Your task to perform on an android device: Is it going to rain today? Image 0: 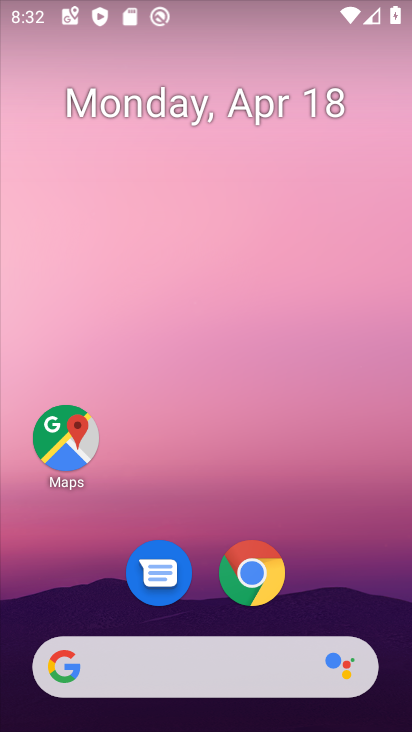
Step 0: click (197, 676)
Your task to perform on an android device: Is it going to rain today? Image 1: 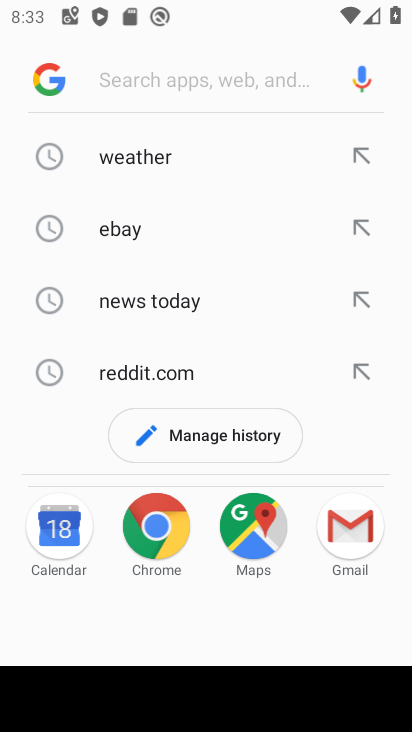
Step 1: type "is it going to rain today"
Your task to perform on an android device: Is it going to rain today? Image 2: 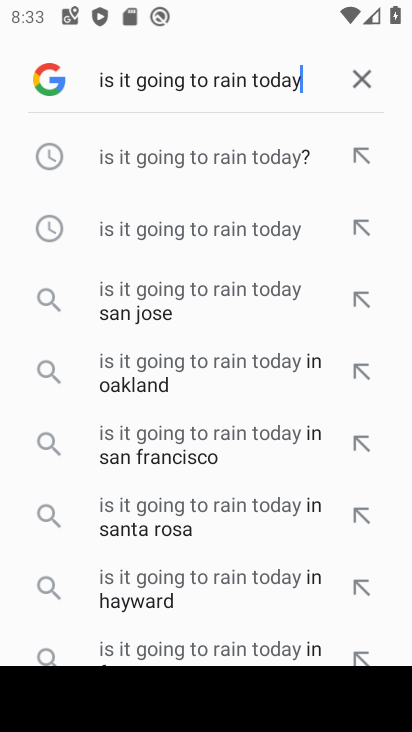
Step 2: click (237, 163)
Your task to perform on an android device: Is it going to rain today? Image 3: 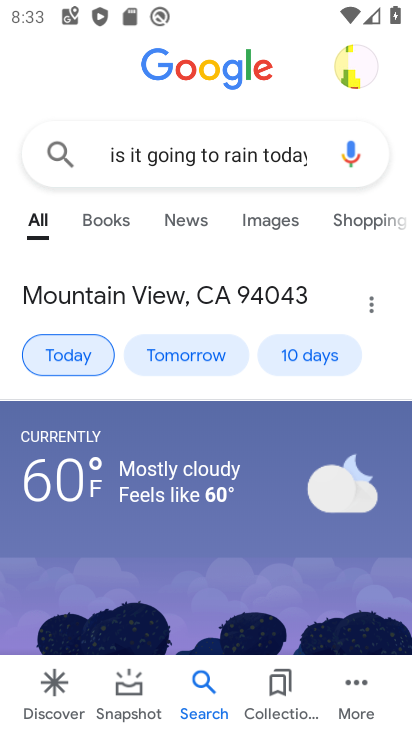
Step 3: task complete